Your task to perform on an android device: find photos in the google photos app Image 0: 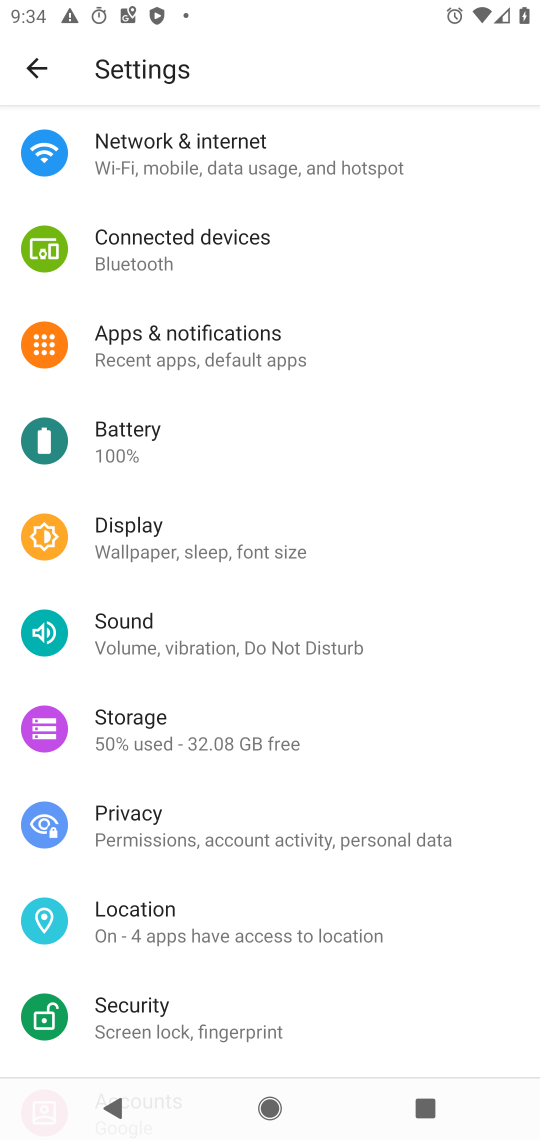
Step 0: press home button
Your task to perform on an android device: find photos in the google photos app Image 1: 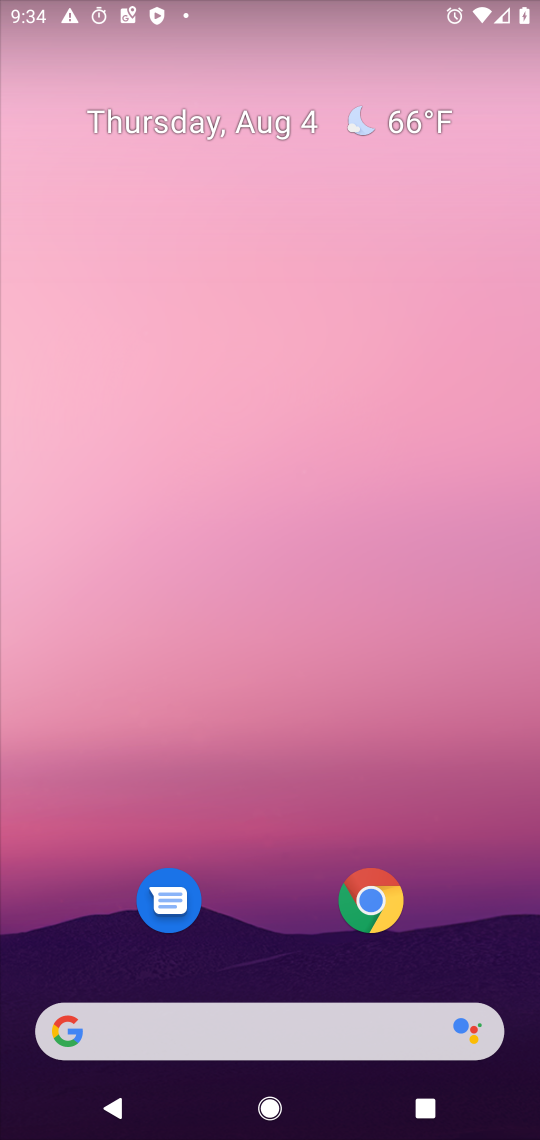
Step 1: drag from (218, 1031) to (422, 163)
Your task to perform on an android device: find photos in the google photos app Image 2: 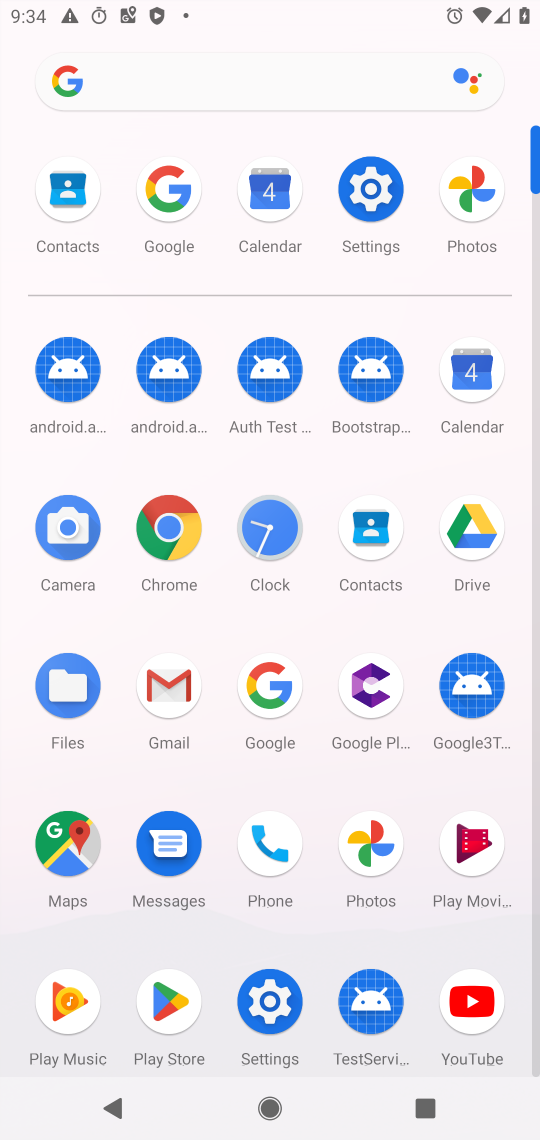
Step 2: click (468, 188)
Your task to perform on an android device: find photos in the google photos app Image 3: 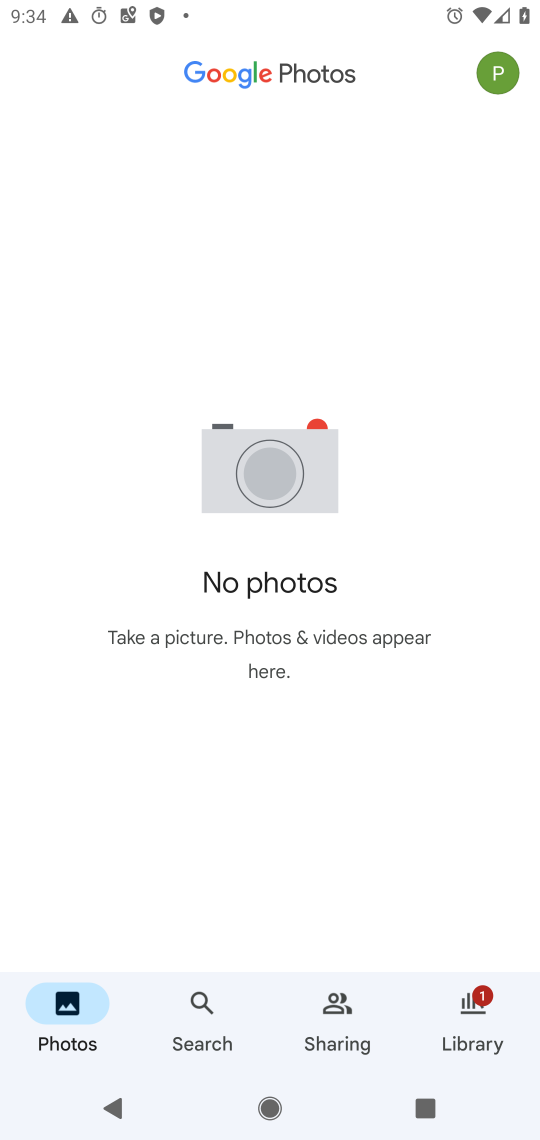
Step 3: click (213, 991)
Your task to perform on an android device: find photos in the google photos app Image 4: 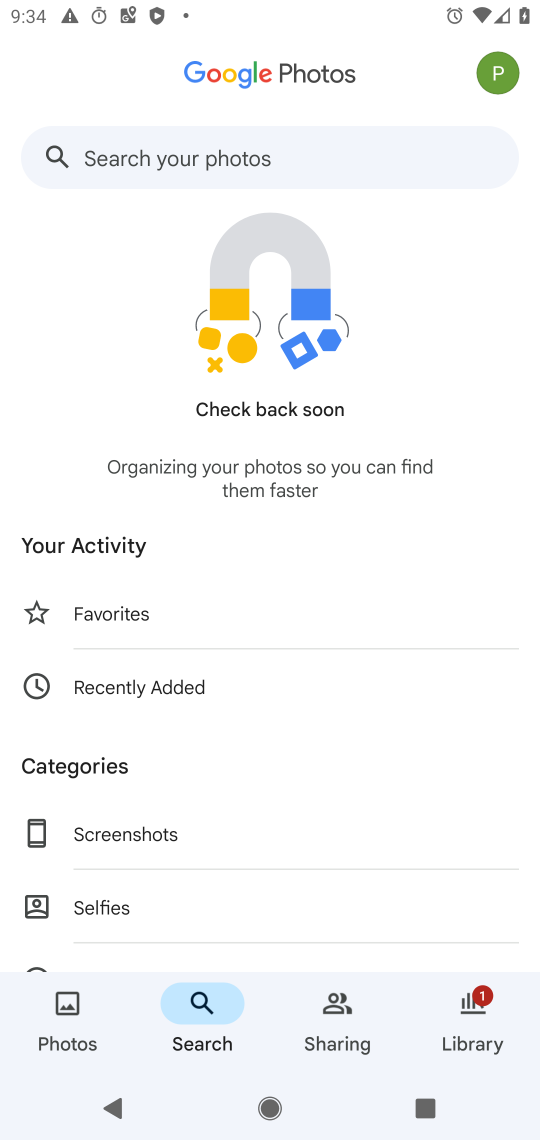
Step 4: drag from (341, 892) to (425, 644)
Your task to perform on an android device: find photos in the google photos app Image 5: 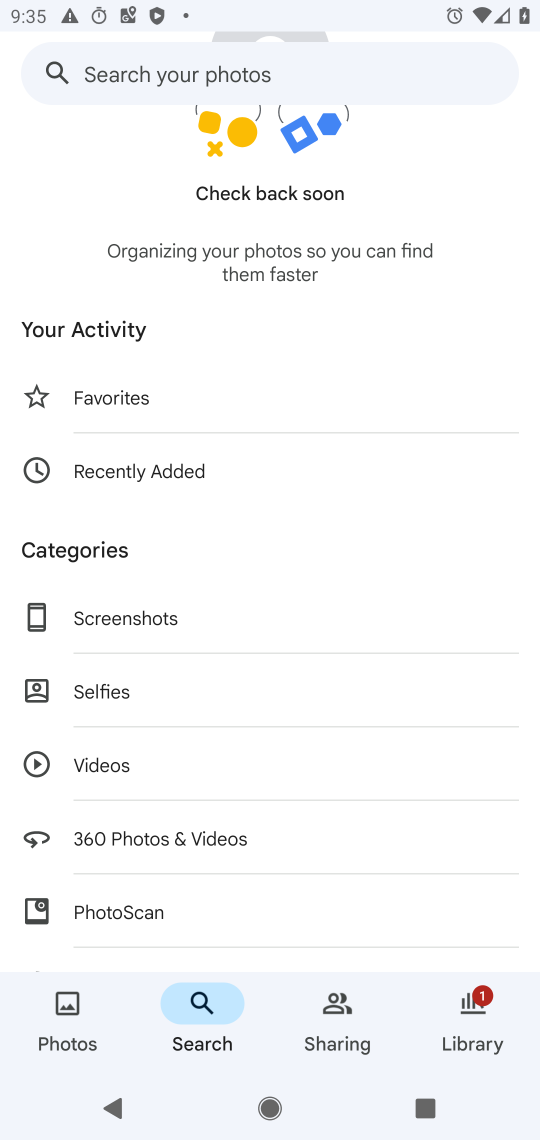
Step 5: drag from (126, 841) to (272, 553)
Your task to perform on an android device: find photos in the google photos app Image 6: 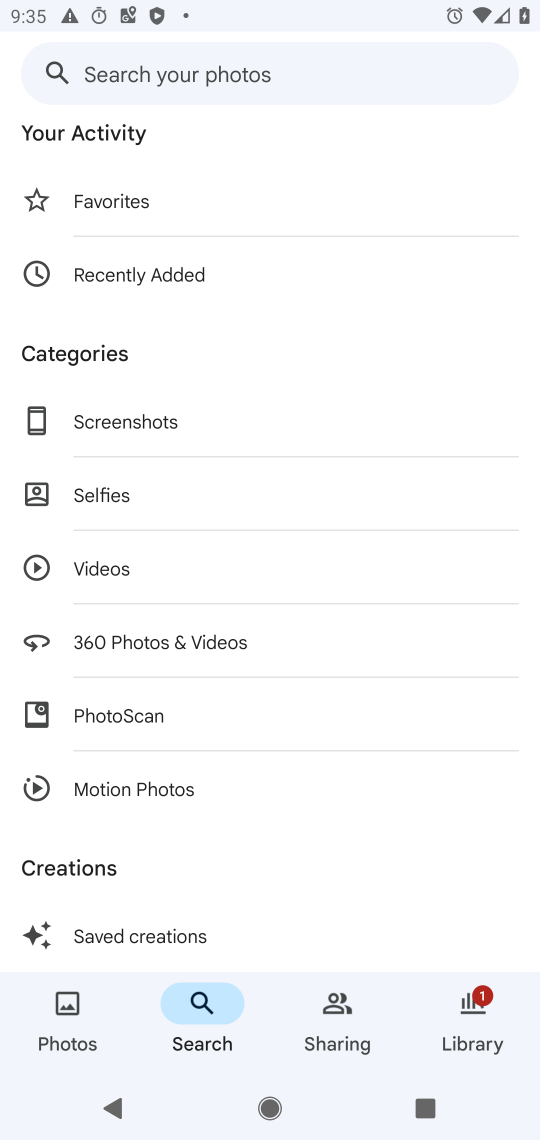
Step 6: drag from (232, 906) to (316, 421)
Your task to perform on an android device: find photos in the google photos app Image 7: 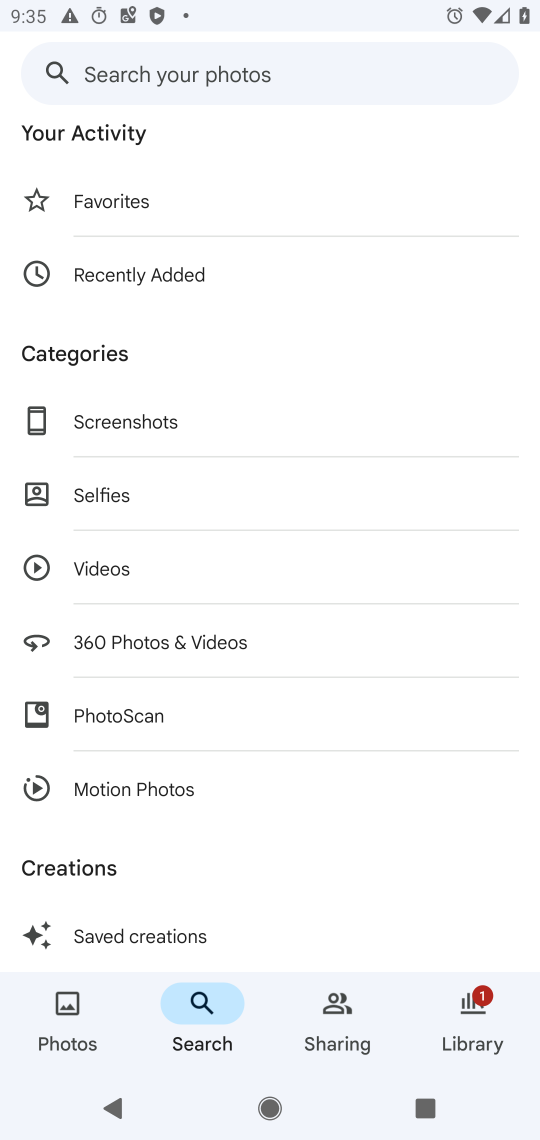
Step 7: click (106, 487)
Your task to perform on an android device: find photos in the google photos app Image 8: 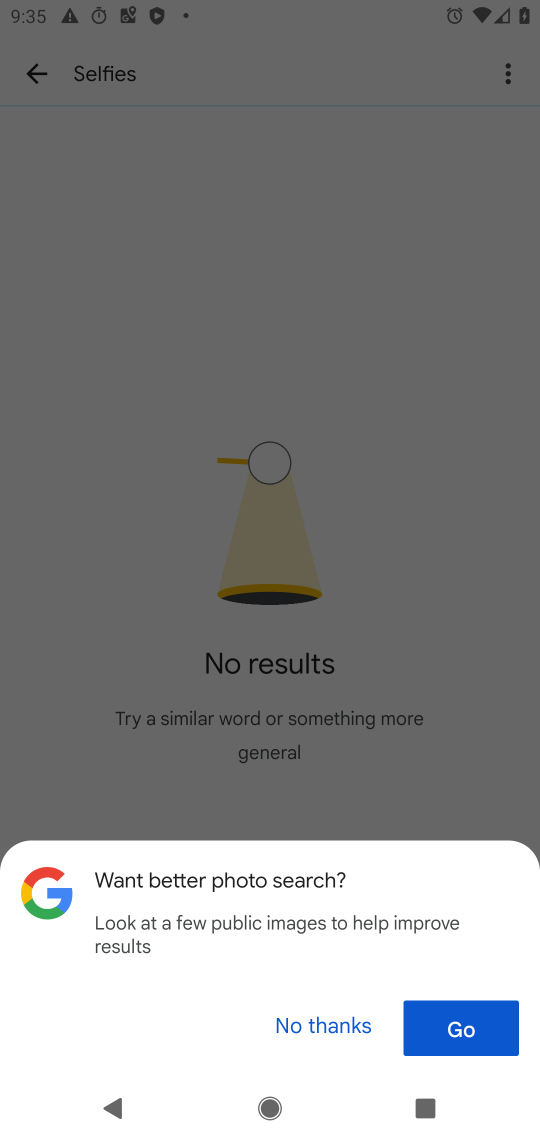
Step 8: click (351, 1021)
Your task to perform on an android device: find photos in the google photos app Image 9: 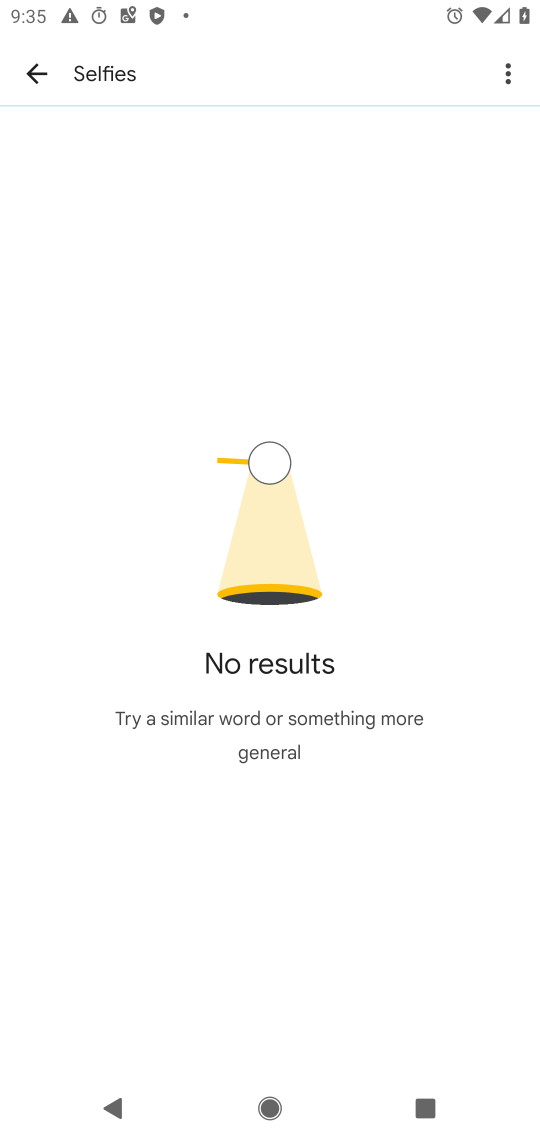
Step 9: press back button
Your task to perform on an android device: find photos in the google photos app Image 10: 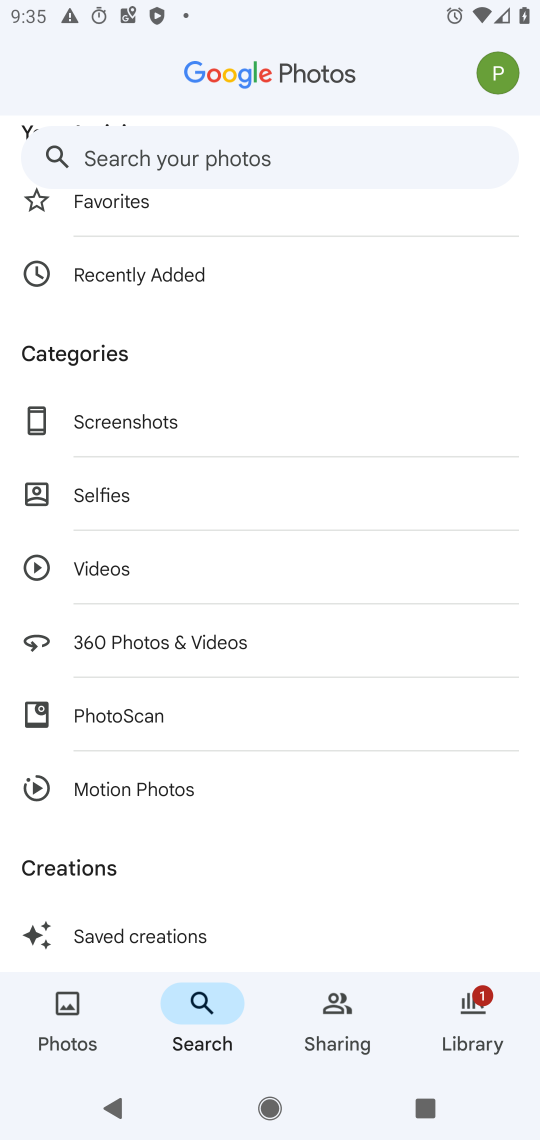
Step 10: drag from (179, 298) to (125, 697)
Your task to perform on an android device: find photos in the google photos app Image 11: 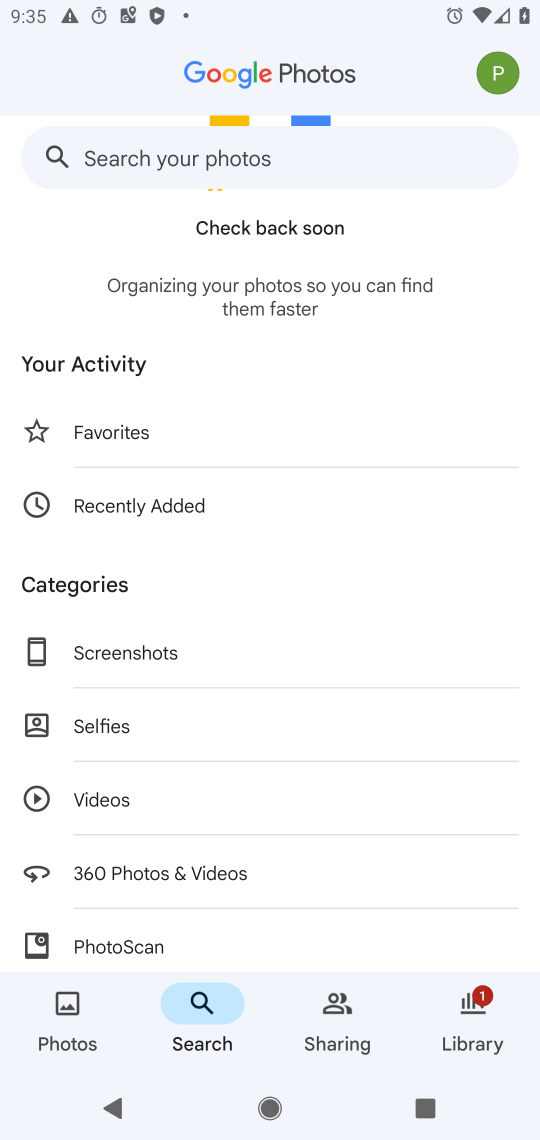
Step 11: click (293, 149)
Your task to perform on an android device: find photos in the google photos app Image 12: 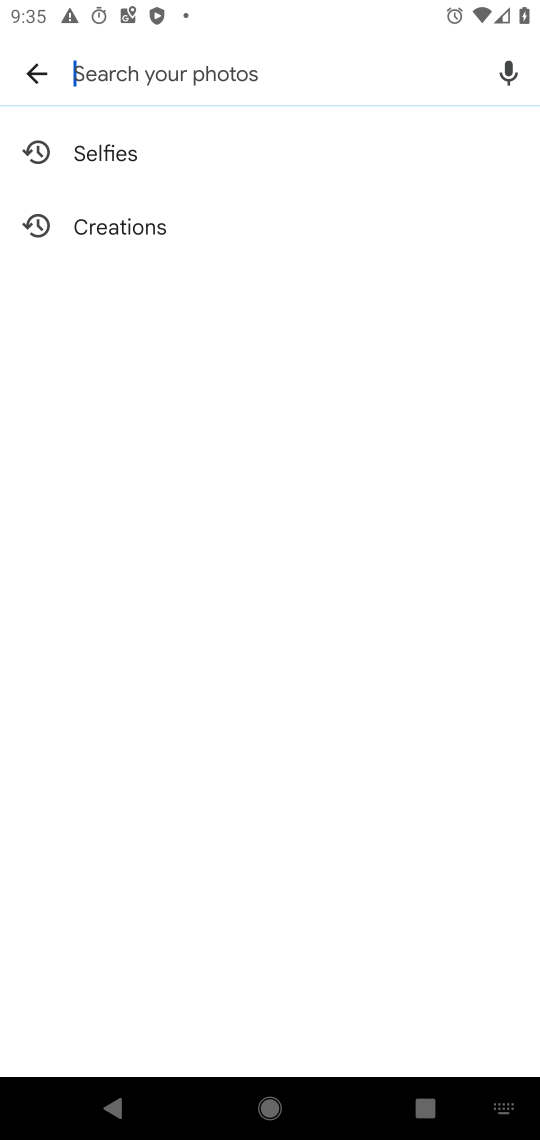
Step 12: click (119, 223)
Your task to perform on an android device: find photos in the google photos app Image 13: 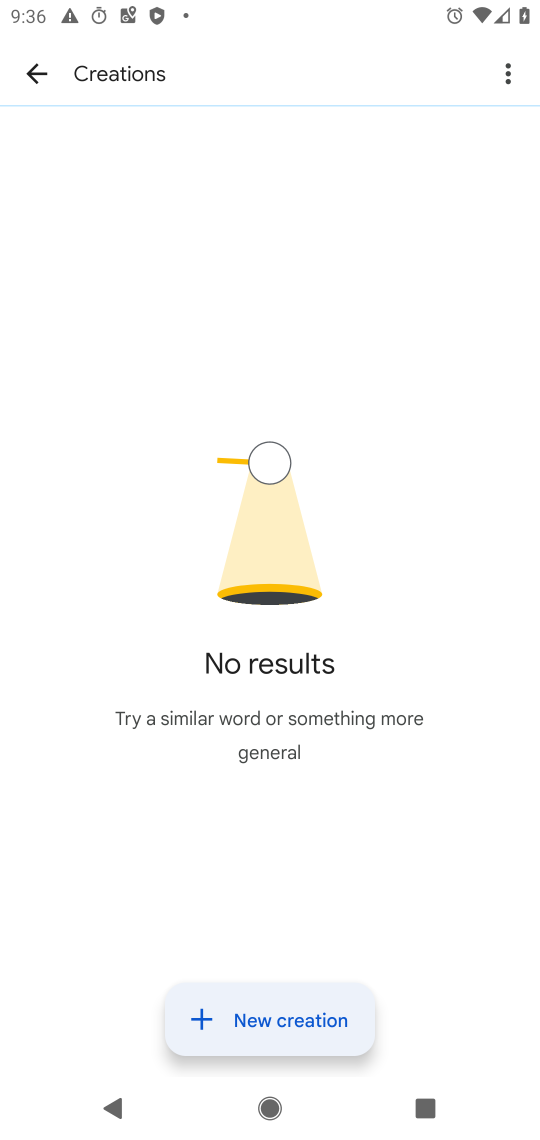
Step 13: task complete